Your task to perform on an android device: empty trash in google photos Image 0: 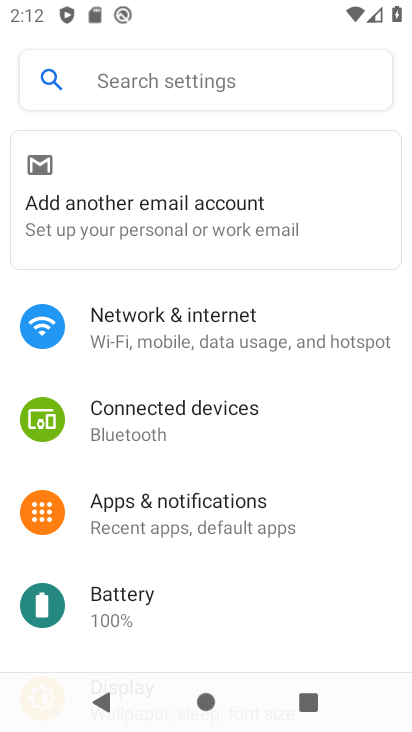
Step 0: press back button
Your task to perform on an android device: empty trash in google photos Image 1: 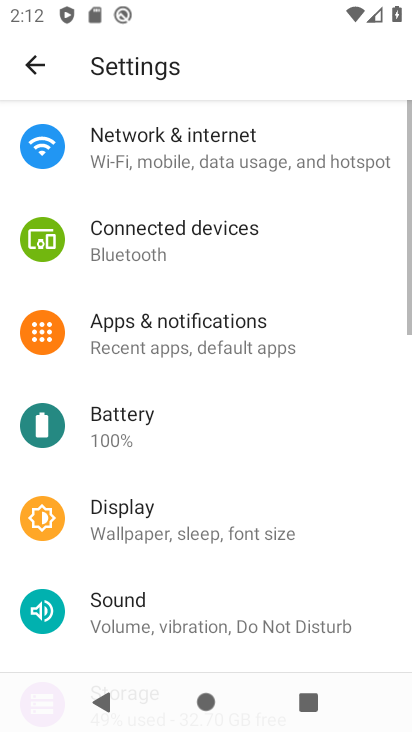
Step 1: press back button
Your task to perform on an android device: empty trash in google photos Image 2: 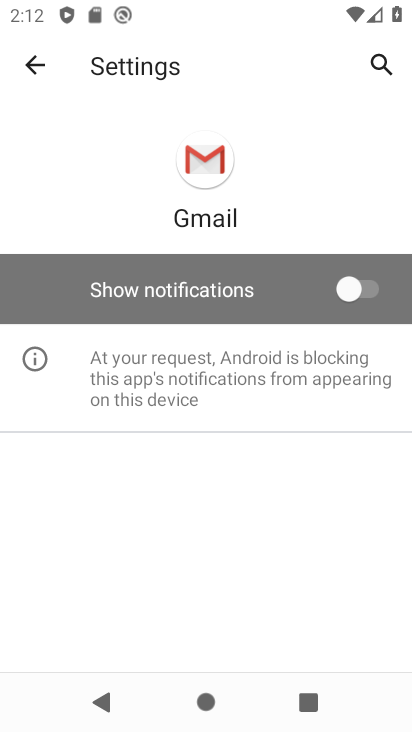
Step 2: press home button
Your task to perform on an android device: empty trash in google photos Image 3: 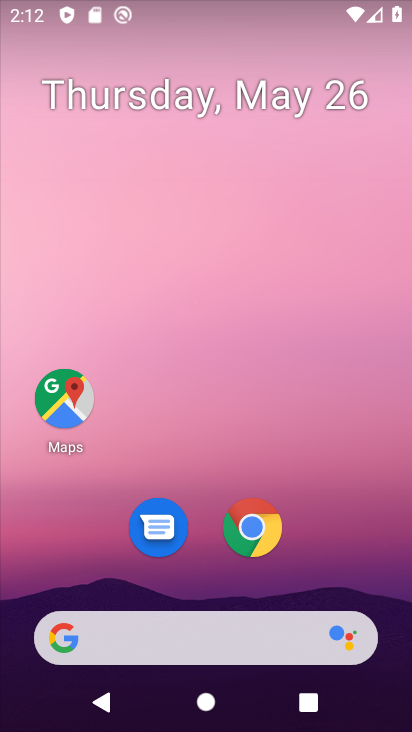
Step 3: drag from (207, 576) to (327, 19)
Your task to perform on an android device: empty trash in google photos Image 4: 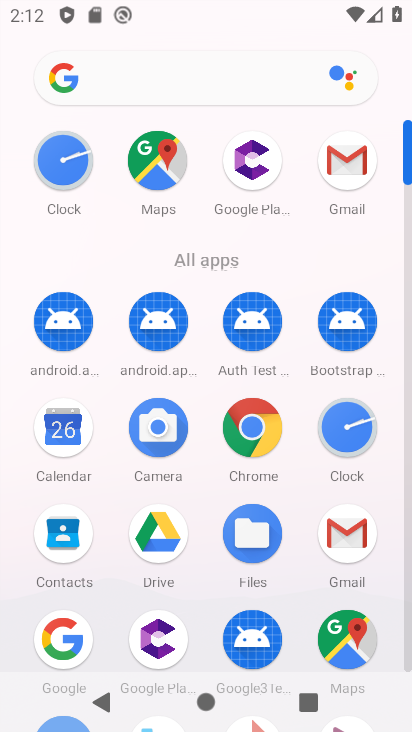
Step 4: drag from (184, 552) to (290, 72)
Your task to perform on an android device: empty trash in google photos Image 5: 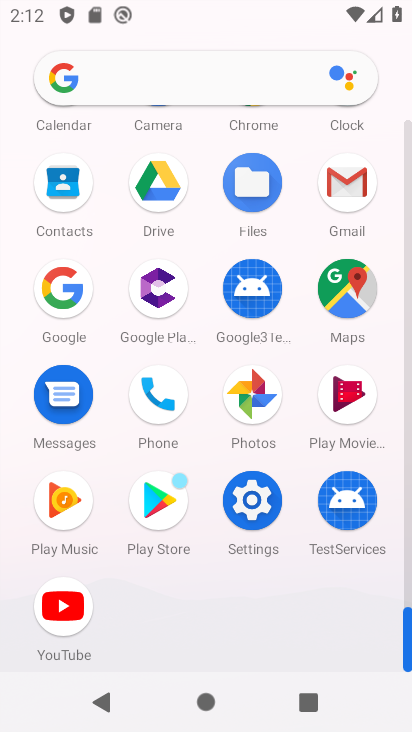
Step 5: click (260, 412)
Your task to perform on an android device: empty trash in google photos Image 6: 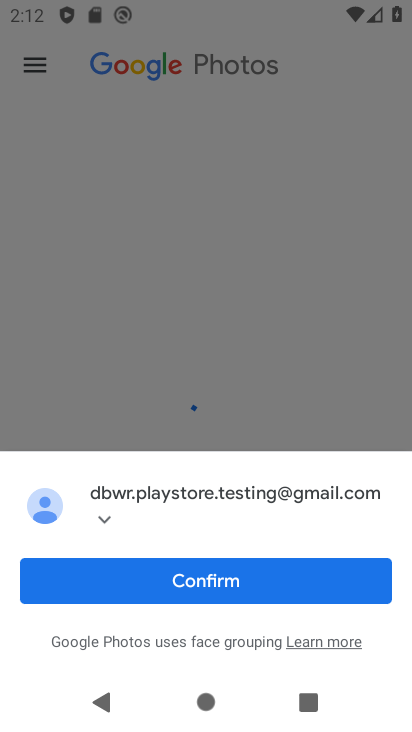
Step 6: click (27, 63)
Your task to perform on an android device: empty trash in google photos Image 7: 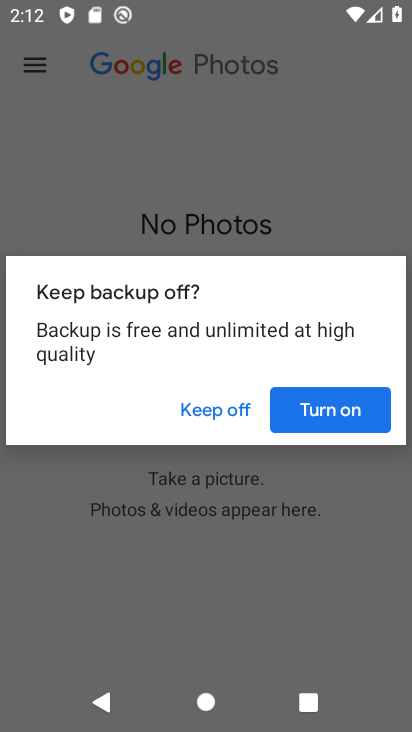
Step 7: click (201, 420)
Your task to perform on an android device: empty trash in google photos Image 8: 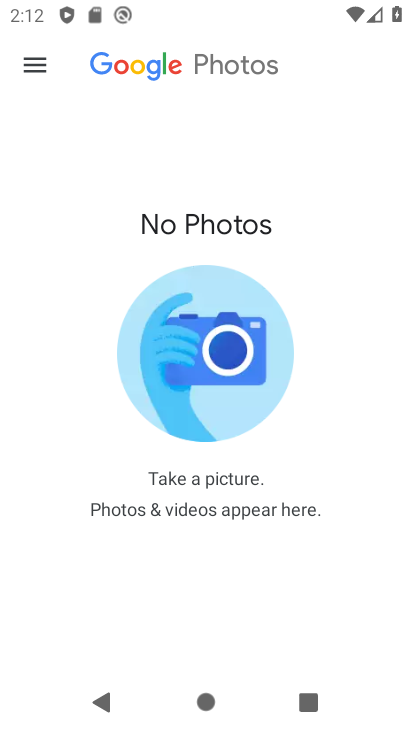
Step 8: click (38, 56)
Your task to perform on an android device: empty trash in google photos Image 9: 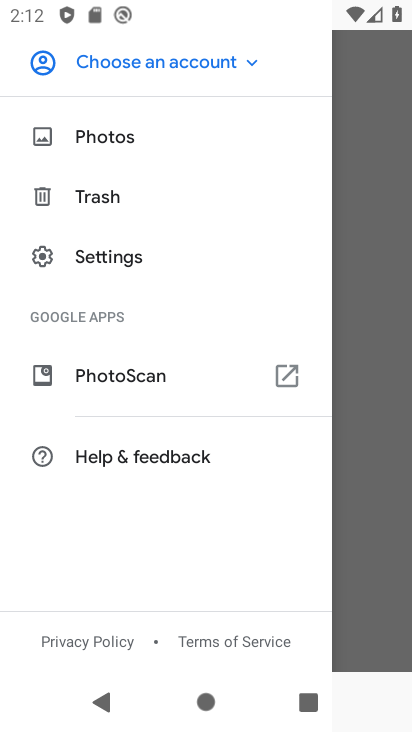
Step 9: click (115, 207)
Your task to perform on an android device: empty trash in google photos Image 10: 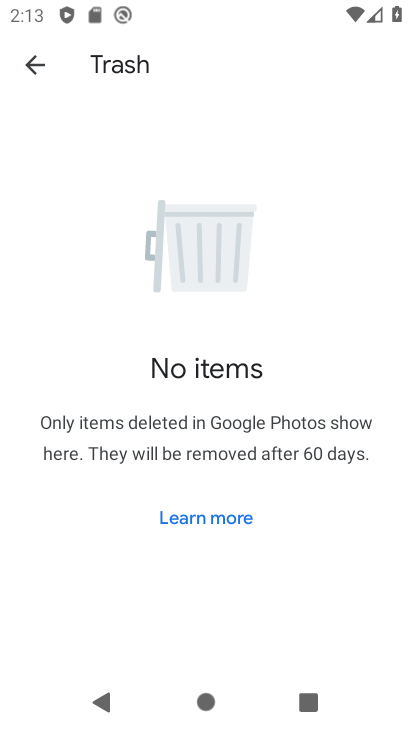
Step 10: task complete